Your task to perform on an android device: open a new tab in the chrome app Image 0: 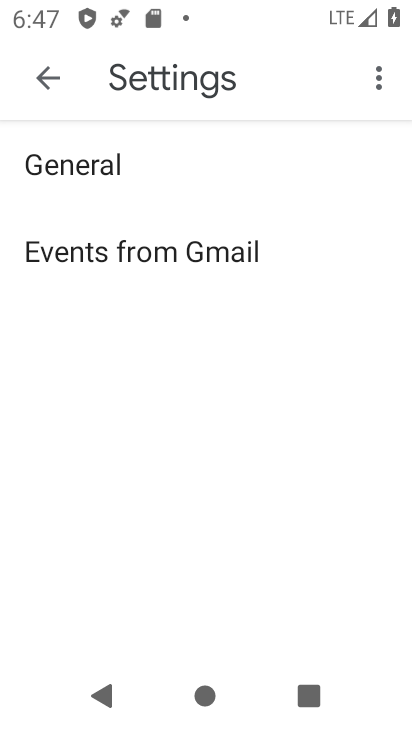
Step 0: press home button
Your task to perform on an android device: open a new tab in the chrome app Image 1: 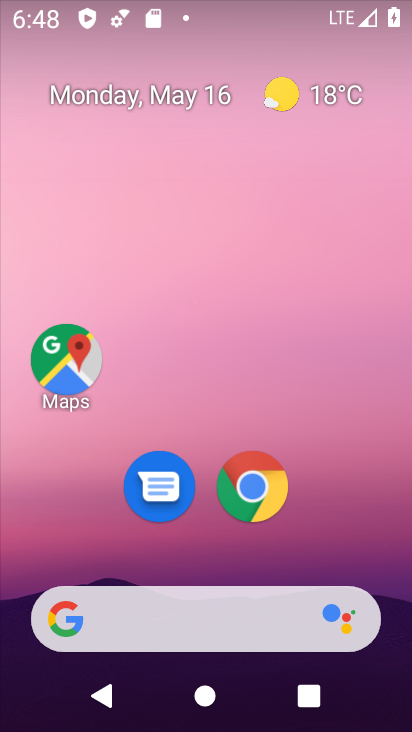
Step 1: click (252, 480)
Your task to perform on an android device: open a new tab in the chrome app Image 2: 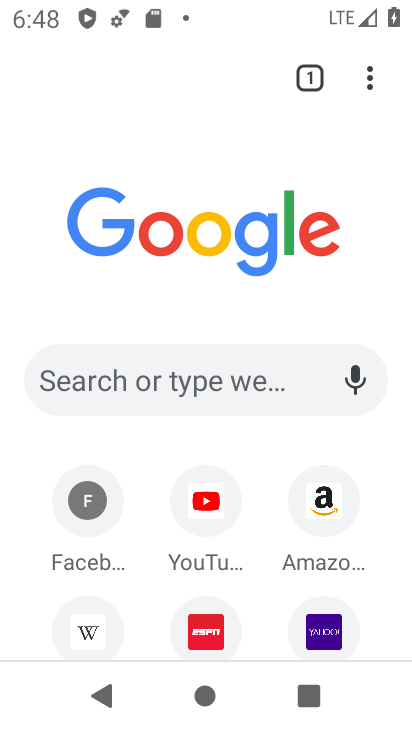
Step 2: click (369, 80)
Your task to perform on an android device: open a new tab in the chrome app Image 3: 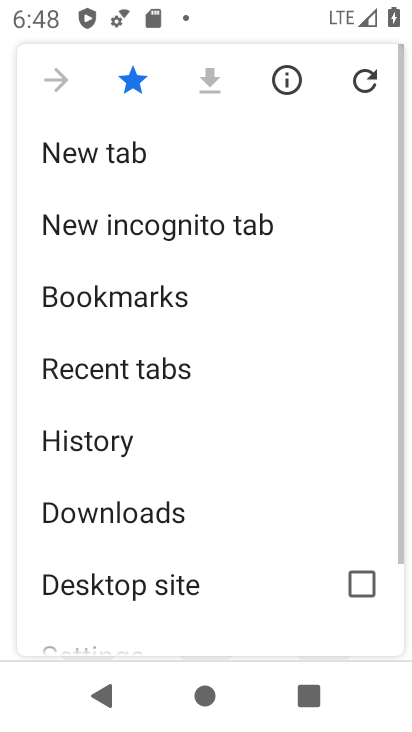
Step 3: click (127, 140)
Your task to perform on an android device: open a new tab in the chrome app Image 4: 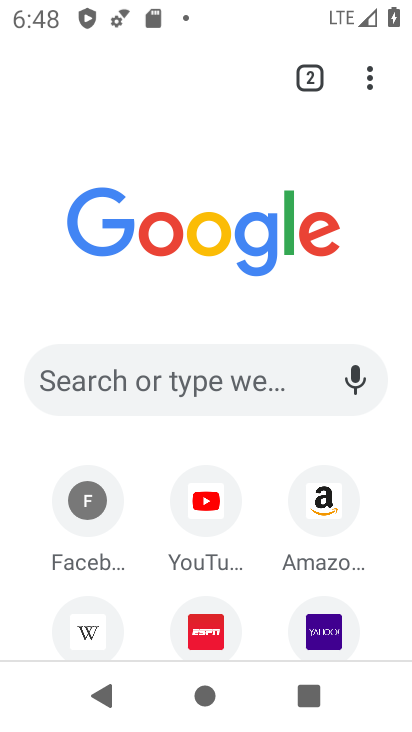
Step 4: task complete